Your task to perform on an android device: snooze an email in the gmail app Image 0: 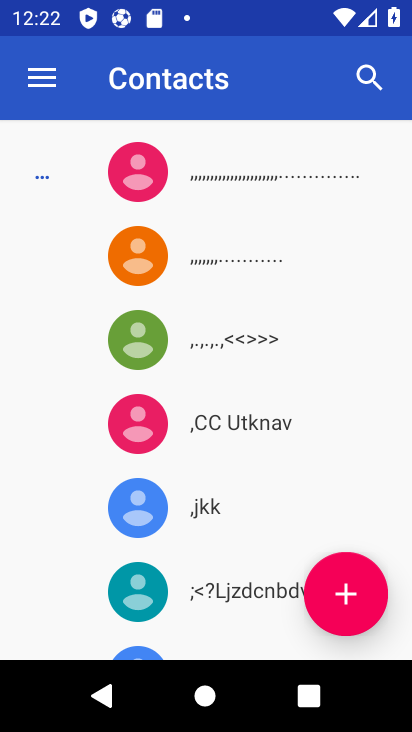
Step 0: press home button
Your task to perform on an android device: snooze an email in the gmail app Image 1: 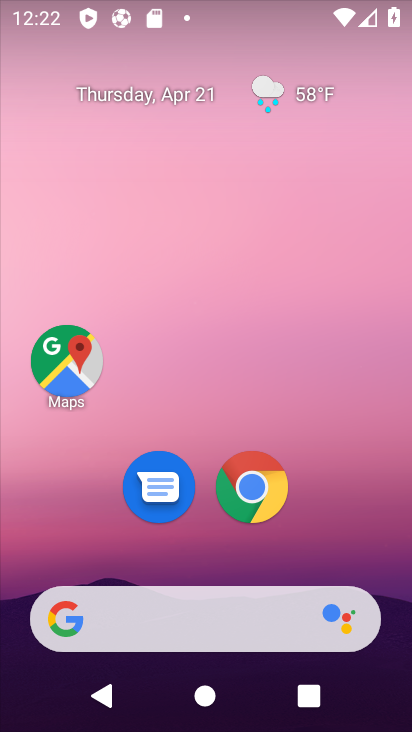
Step 1: drag from (372, 563) to (365, 24)
Your task to perform on an android device: snooze an email in the gmail app Image 2: 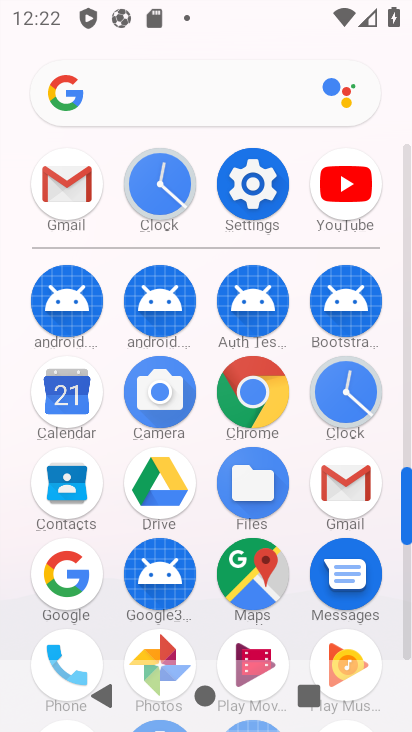
Step 2: click (65, 193)
Your task to perform on an android device: snooze an email in the gmail app Image 3: 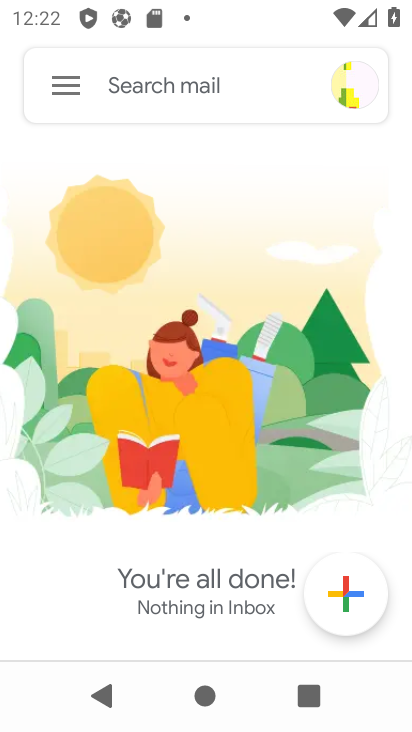
Step 3: click (60, 89)
Your task to perform on an android device: snooze an email in the gmail app Image 4: 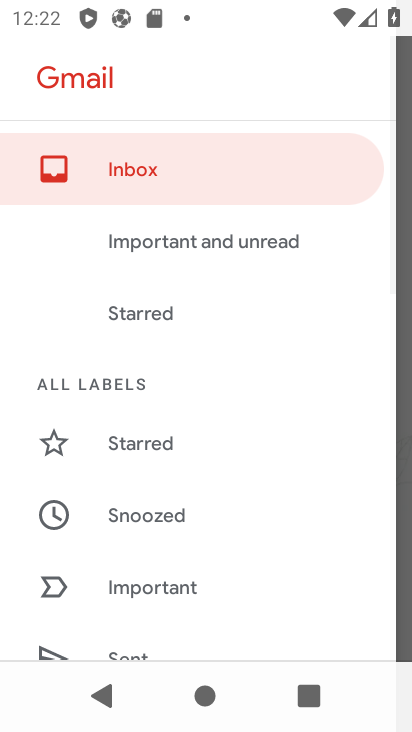
Step 4: drag from (241, 536) to (235, 203)
Your task to perform on an android device: snooze an email in the gmail app Image 5: 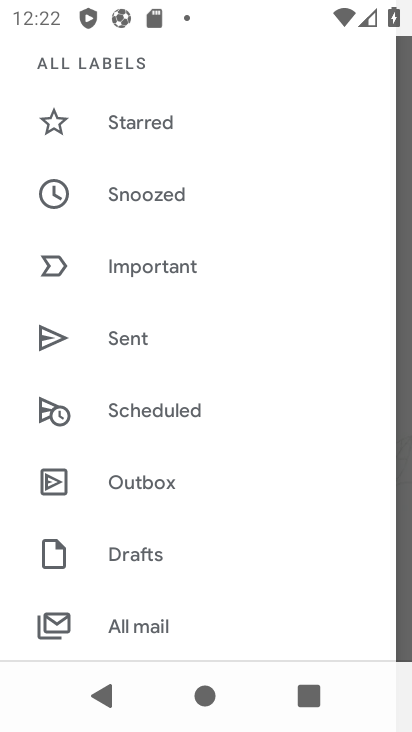
Step 5: click (131, 620)
Your task to perform on an android device: snooze an email in the gmail app Image 6: 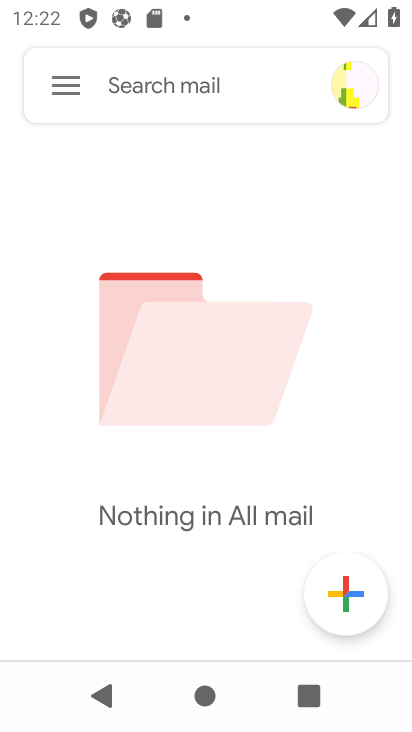
Step 6: task complete